Your task to perform on an android device: Open calendar and show me the second week of next month Image 0: 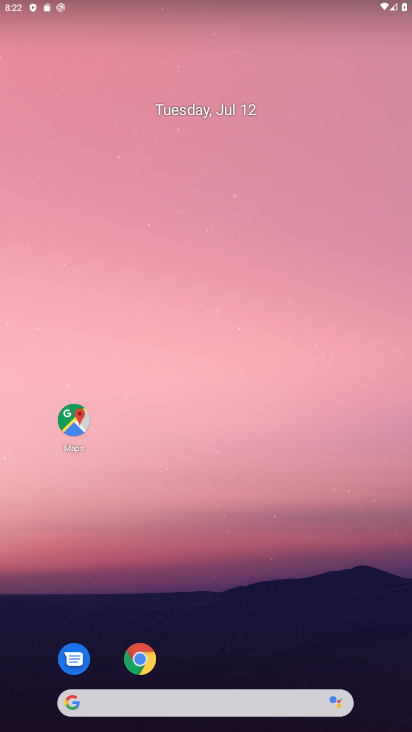
Step 0: drag from (246, 589) to (169, 33)
Your task to perform on an android device: Open calendar and show me the second week of next month Image 1: 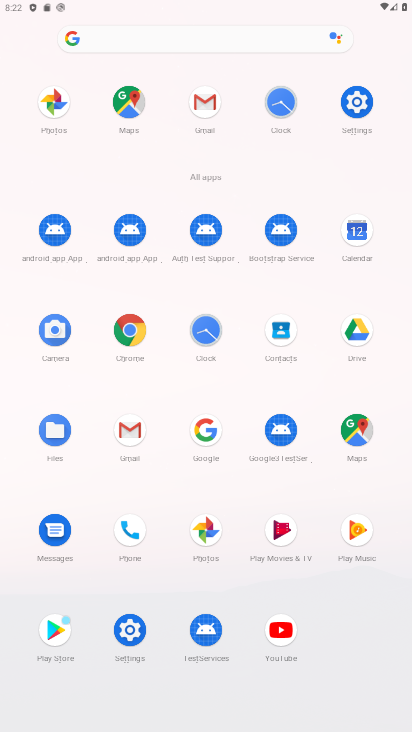
Step 1: click (354, 231)
Your task to perform on an android device: Open calendar and show me the second week of next month Image 2: 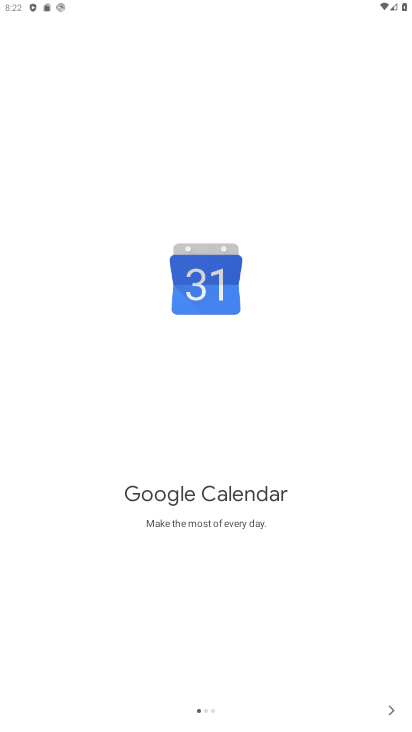
Step 2: click (391, 712)
Your task to perform on an android device: Open calendar and show me the second week of next month Image 3: 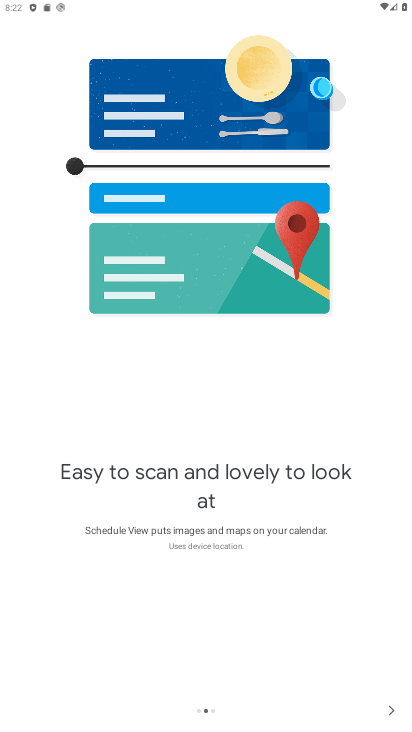
Step 3: click (391, 712)
Your task to perform on an android device: Open calendar and show me the second week of next month Image 4: 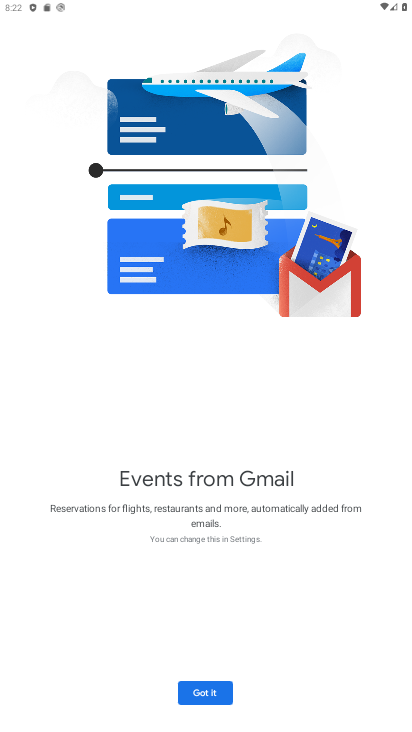
Step 4: click (209, 688)
Your task to perform on an android device: Open calendar and show me the second week of next month Image 5: 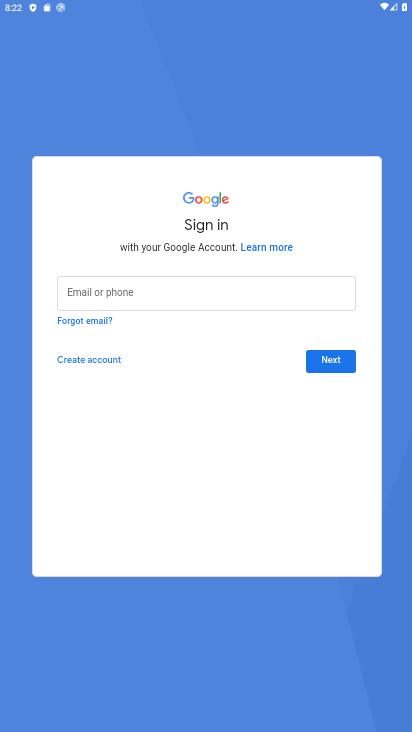
Step 5: click (348, 363)
Your task to perform on an android device: Open calendar and show me the second week of next month Image 6: 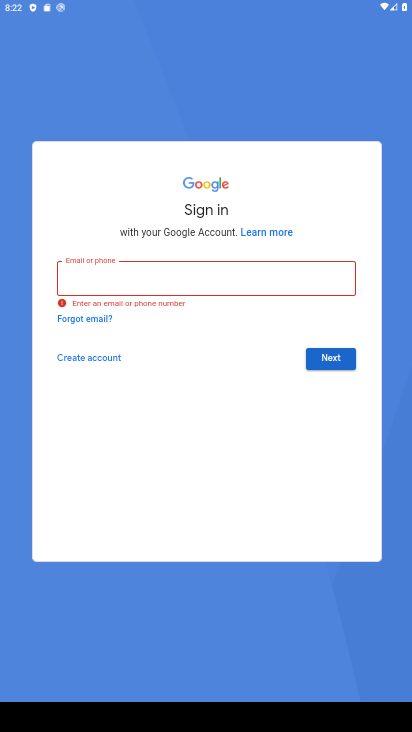
Step 6: task complete